Your task to perform on an android device: toggle airplane mode Image 0: 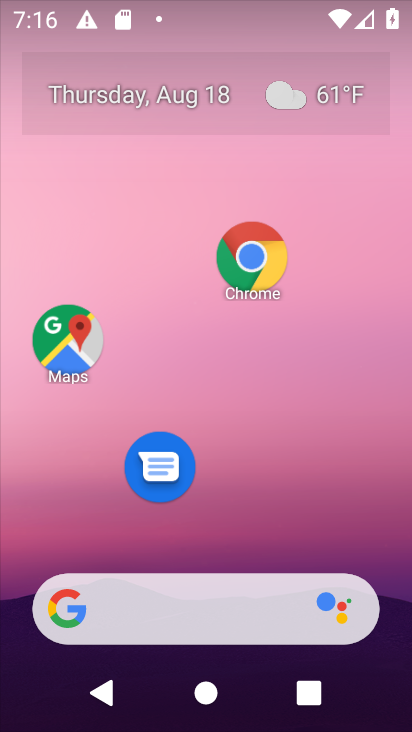
Step 0: drag from (296, 504) to (327, 181)
Your task to perform on an android device: toggle airplane mode Image 1: 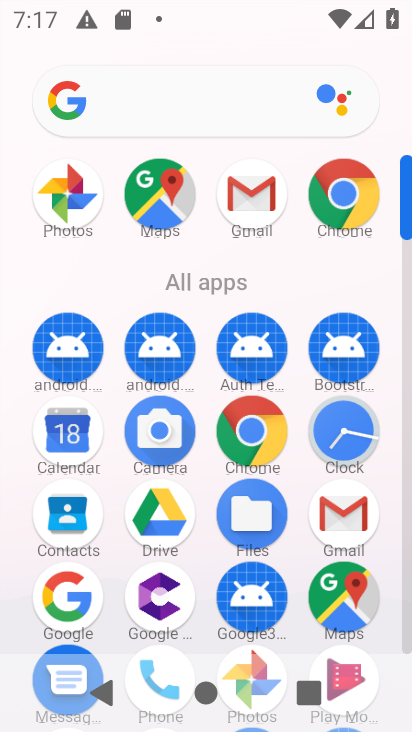
Step 1: task complete